Your task to perform on an android device: View the shopping cart on ebay.com. Search for beats solo 3 on ebay.com, select the first entry, and add it to the cart. Image 0: 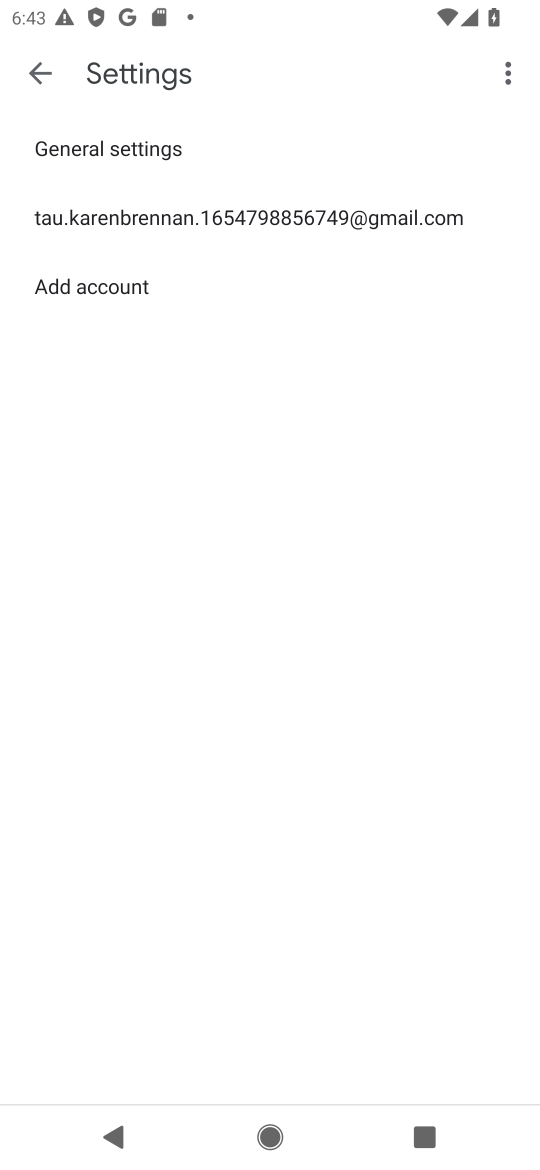
Step 0: press home button
Your task to perform on an android device: View the shopping cart on ebay.com. Search for beats solo 3 on ebay.com, select the first entry, and add it to the cart. Image 1: 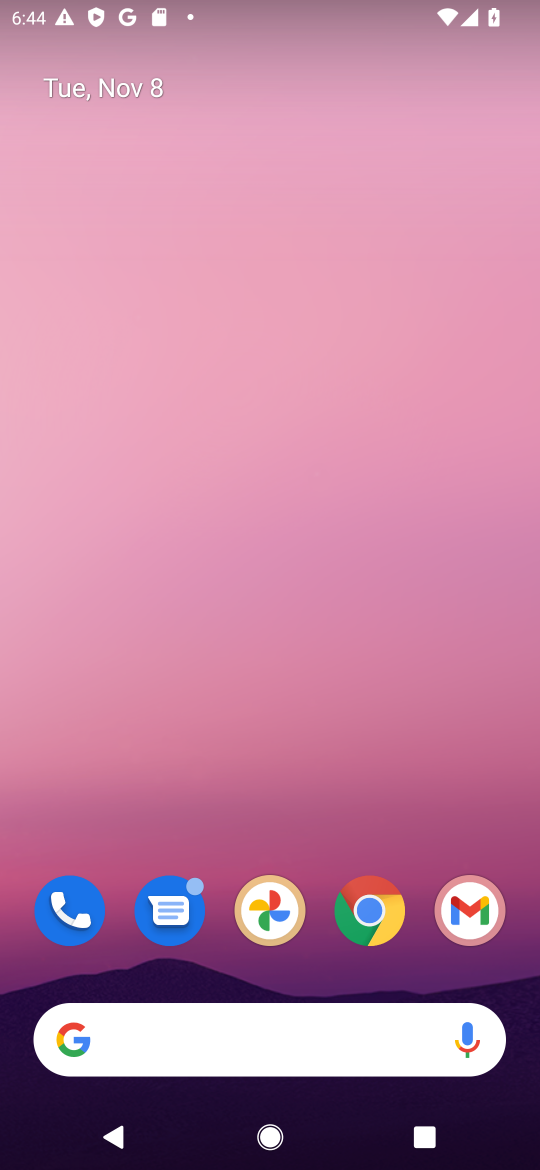
Step 1: click (376, 917)
Your task to perform on an android device: View the shopping cart on ebay.com. Search for beats solo 3 on ebay.com, select the first entry, and add it to the cart. Image 2: 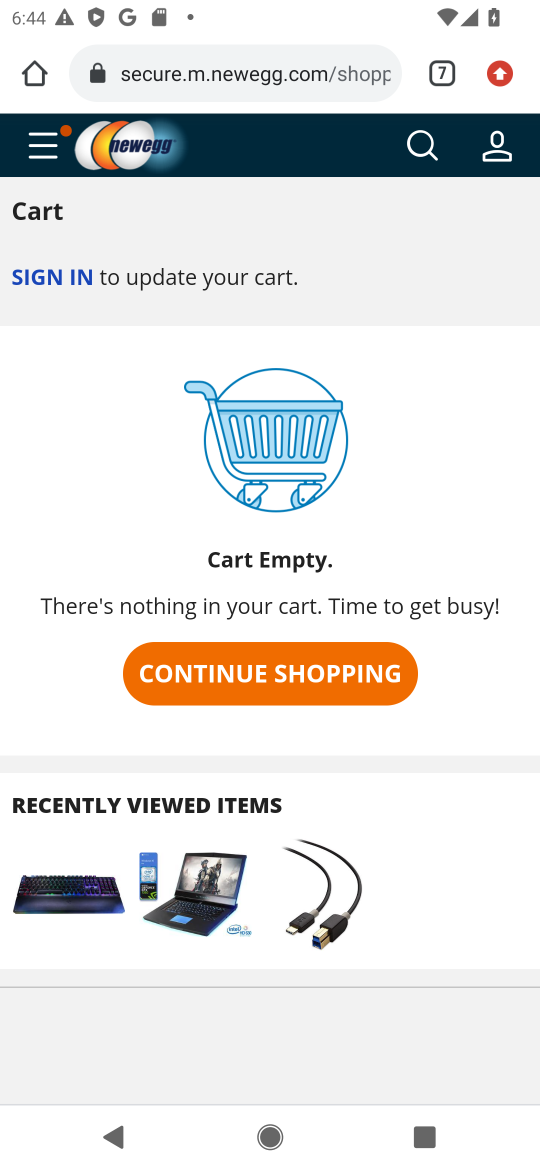
Step 2: click (441, 70)
Your task to perform on an android device: View the shopping cart on ebay.com. Search for beats solo 3 on ebay.com, select the first entry, and add it to the cart. Image 3: 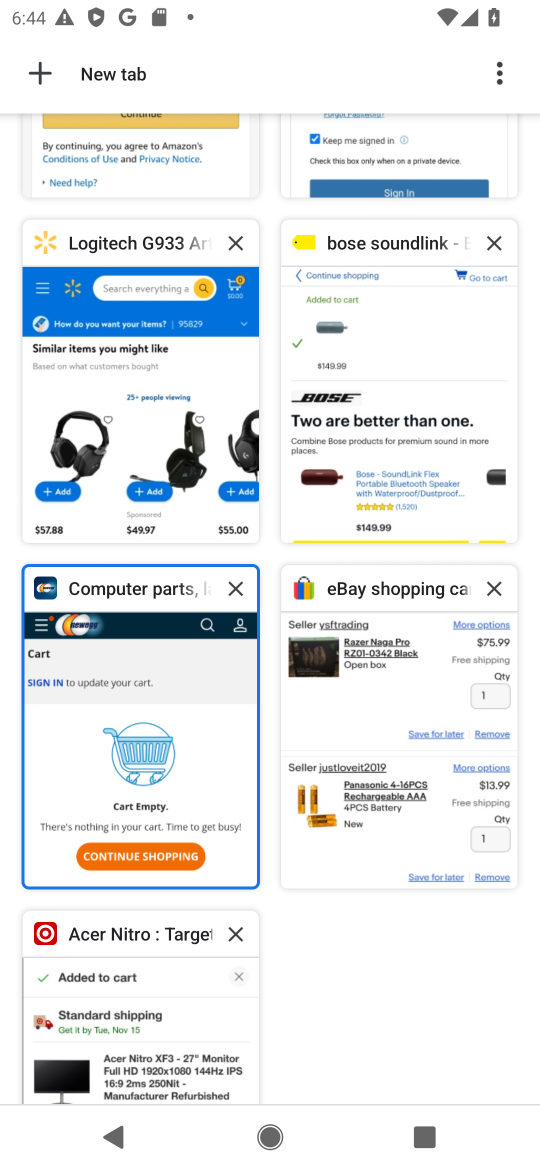
Step 3: click (358, 667)
Your task to perform on an android device: View the shopping cart on ebay.com. Search for beats solo 3 on ebay.com, select the first entry, and add it to the cart. Image 4: 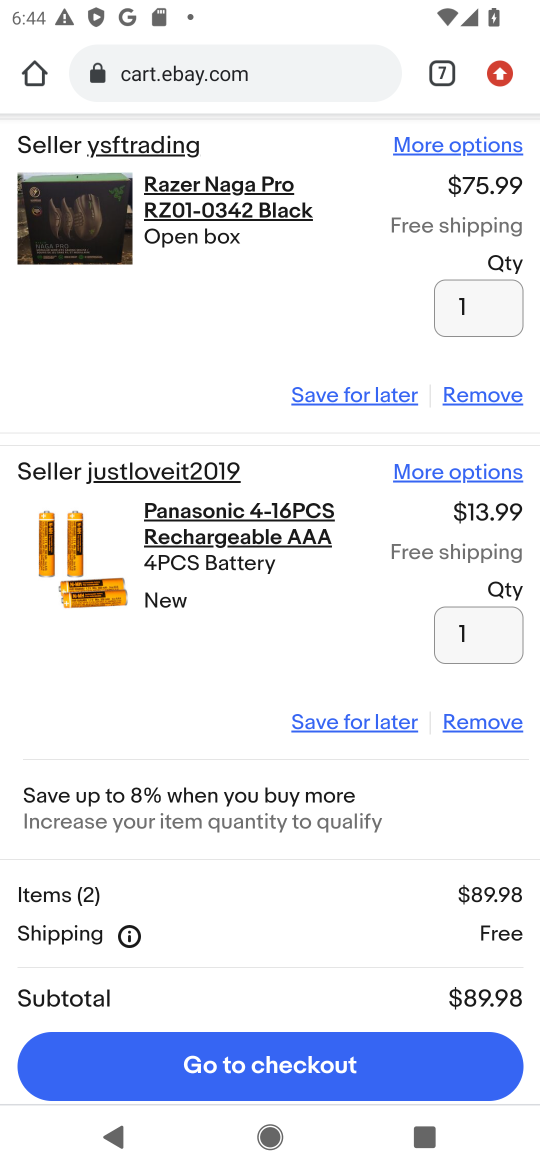
Step 4: drag from (336, 279) to (298, 744)
Your task to perform on an android device: View the shopping cart on ebay.com. Search for beats solo 3 on ebay.com, select the first entry, and add it to the cart. Image 5: 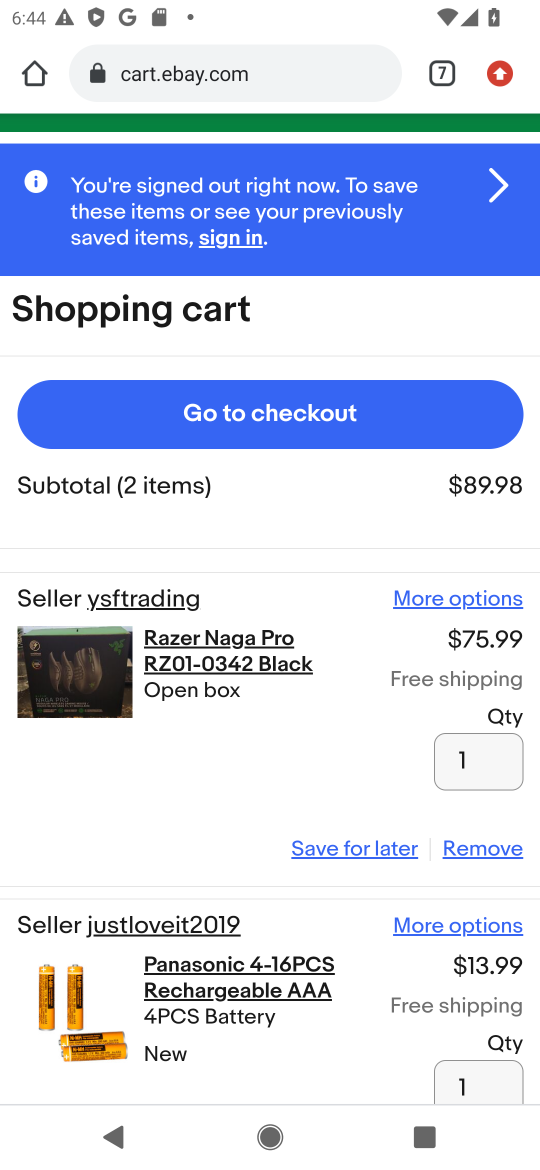
Step 5: drag from (317, 252) to (287, 1070)
Your task to perform on an android device: View the shopping cart on ebay.com. Search for beats solo 3 on ebay.com, select the first entry, and add it to the cart. Image 6: 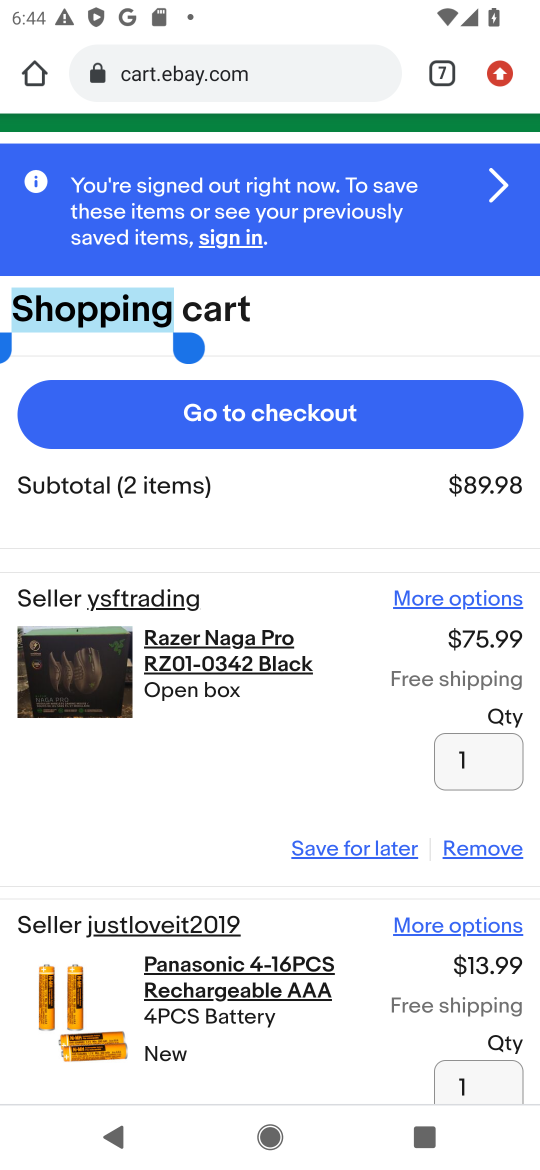
Step 6: click (398, 241)
Your task to perform on an android device: View the shopping cart on ebay.com. Search for beats solo 3 on ebay.com, select the first entry, and add it to the cart. Image 7: 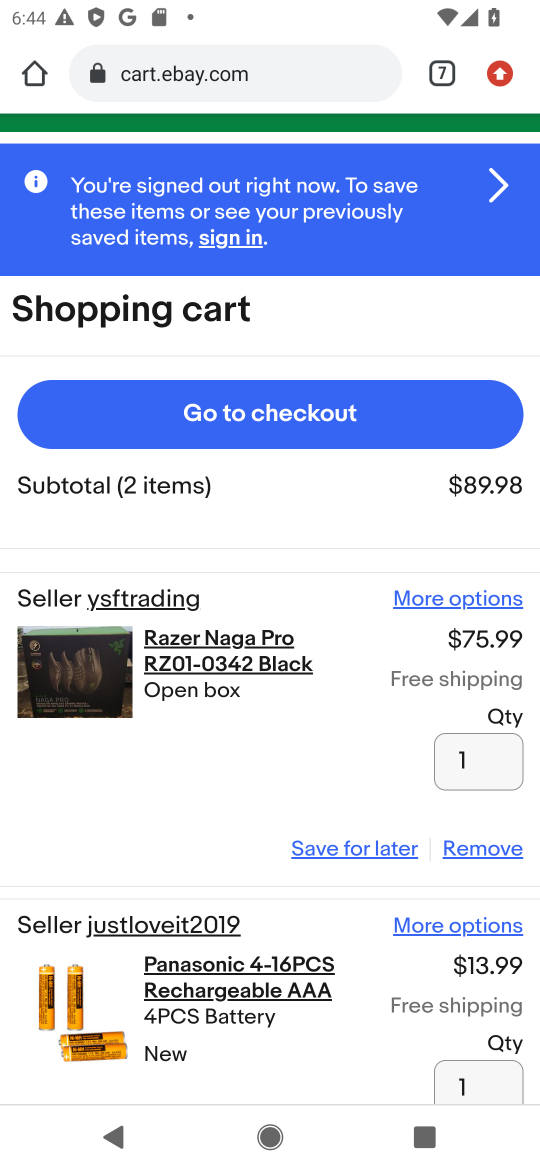
Step 7: drag from (390, 258) to (335, 628)
Your task to perform on an android device: View the shopping cart on ebay.com. Search for beats solo 3 on ebay.com, select the first entry, and add it to the cart. Image 8: 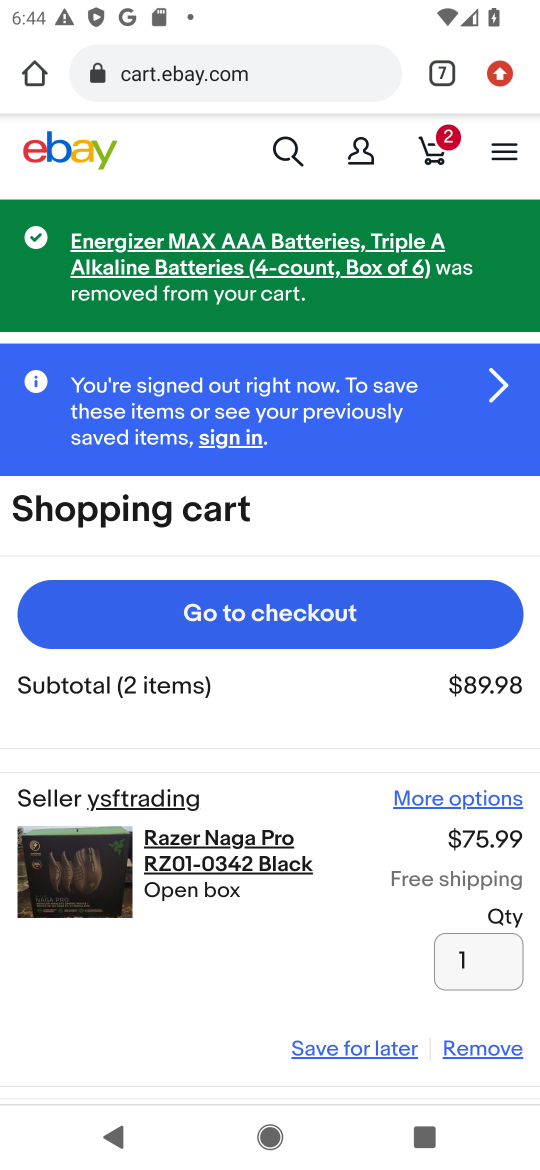
Step 8: click (281, 150)
Your task to perform on an android device: View the shopping cart on ebay.com. Search for beats solo 3 on ebay.com, select the first entry, and add it to the cart. Image 9: 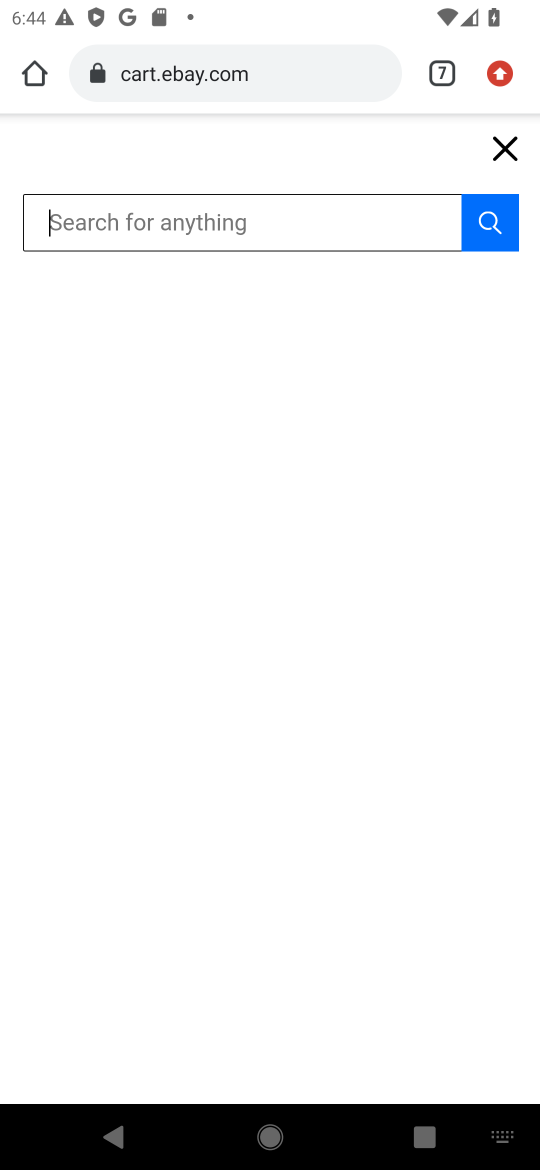
Step 9: type "beats solo 3"
Your task to perform on an android device: View the shopping cart on ebay.com. Search for beats solo 3 on ebay.com, select the first entry, and add it to the cart. Image 10: 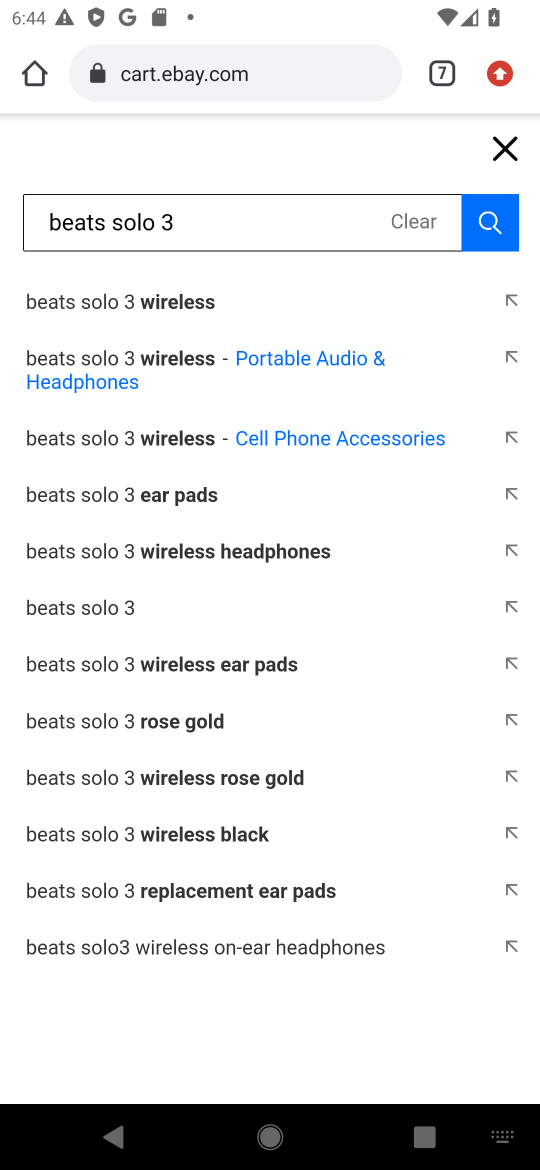
Step 10: click (188, 356)
Your task to perform on an android device: View the shopping cart on ebay.com. Search for beats solo 3 on ebay.com, select the first entry, and add it to the cart. Image 11: 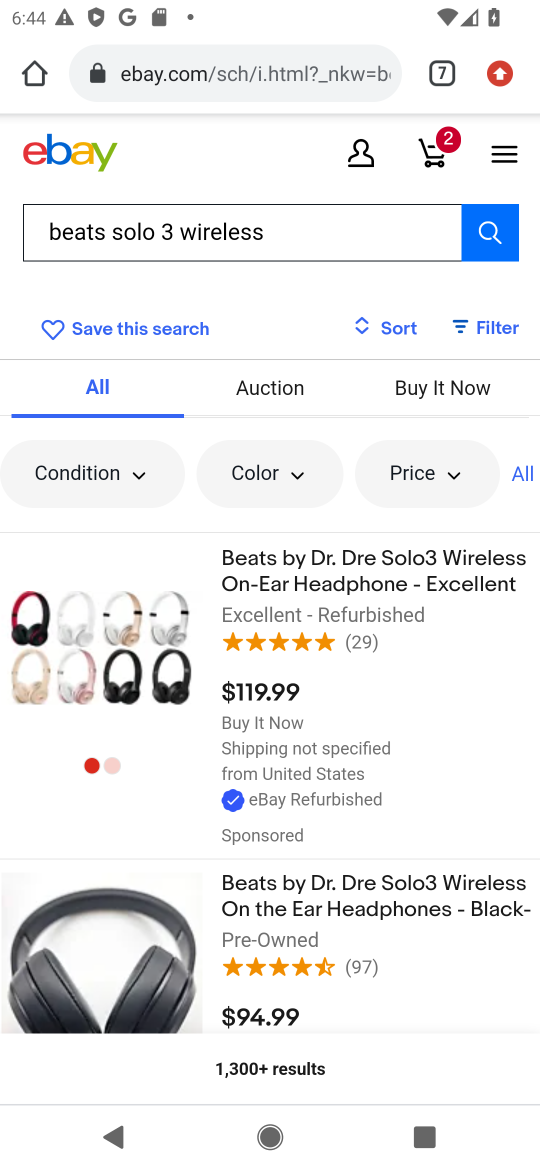
Step 11: click (377, 576)
Your task to perform on an android device: View the shopping cart on ebay.com. Search for beats solo 3 on ebay.com, select the first entry, and add it to the cart. Image 12: 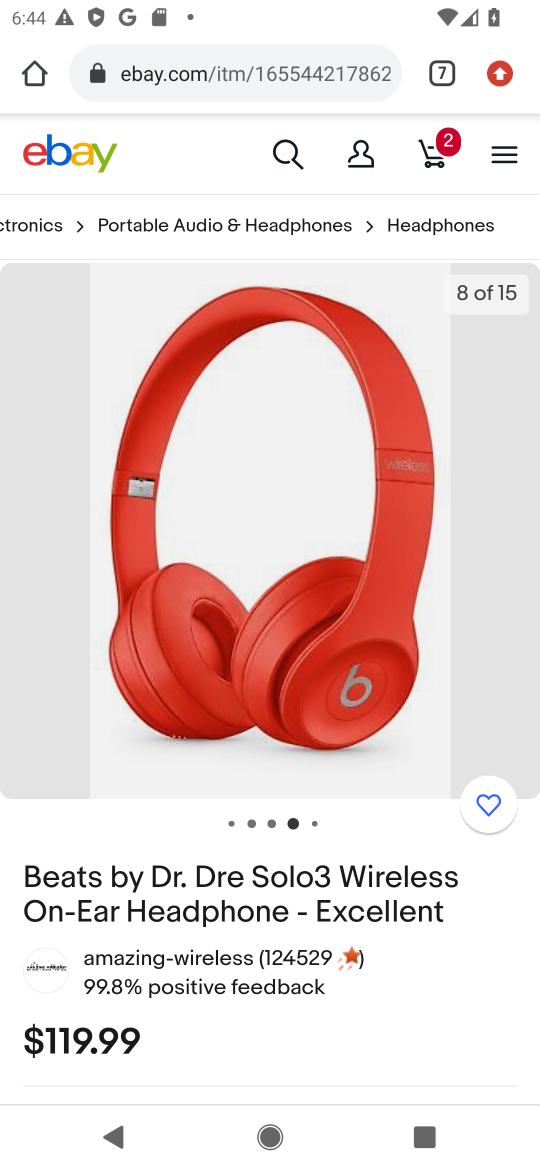
Step 12: drag from (330, 994) to (406, 432)
Your task to perform on an android device: View the shopping cart on ebay.com. Search for beats solo 3 on ebay.com, select the first entry, and add it to the cart. Image 13: 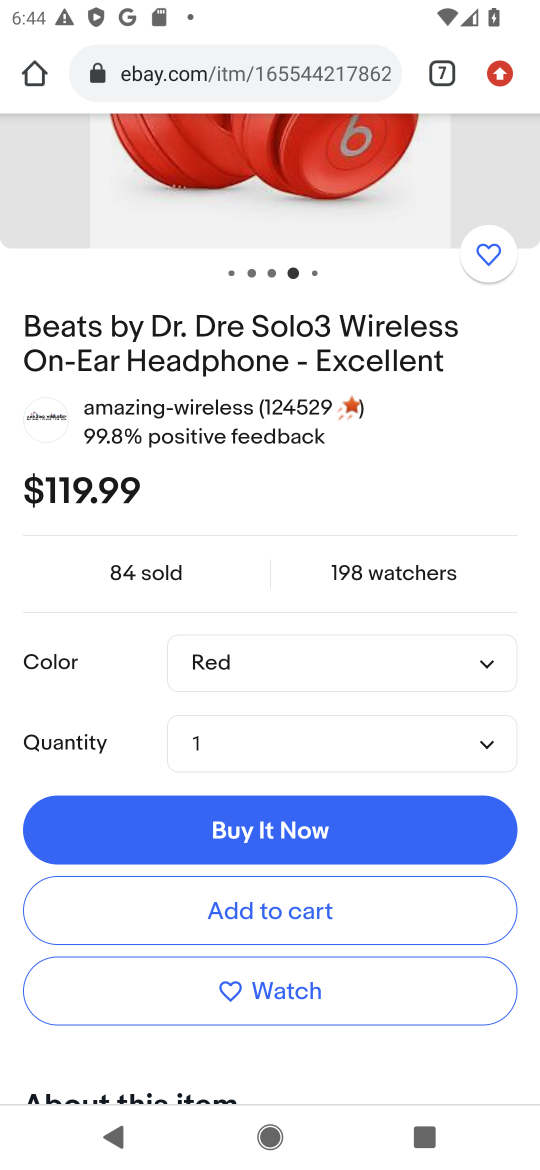
Step 13: click (292, 909)
Your task to perform on an android device: View the shopping cart on ebay.com. Search for beats solo 3 on ebay.com, select the first entry, and add it to the cart. Image 14: 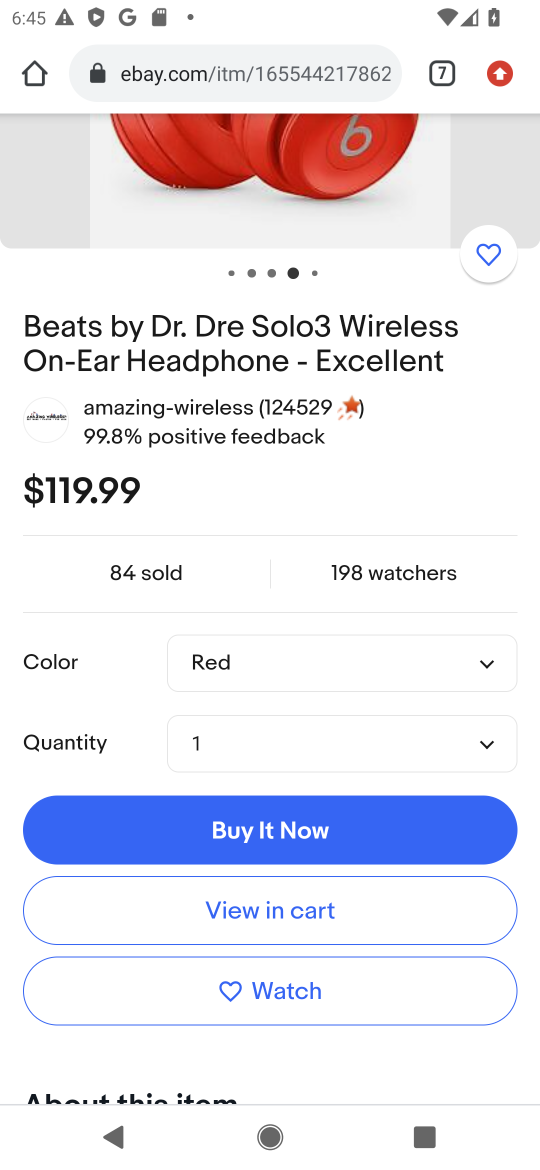
Step 14: task complete